Your task to perform on an android device: Check the weather Image 0: 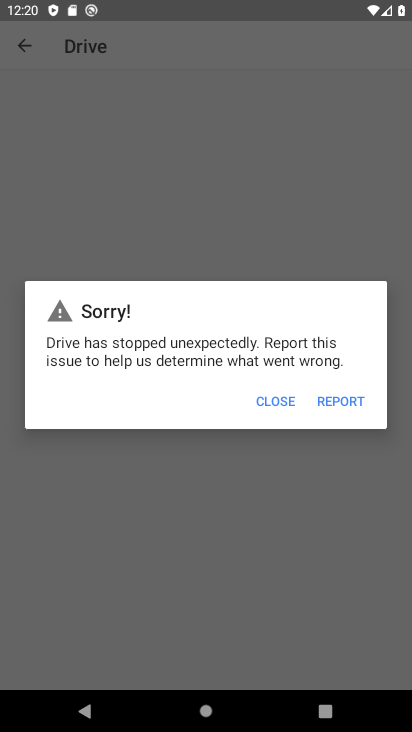
Step 0: press home button
Your task to perform on an android device: Check the weather Image 1: 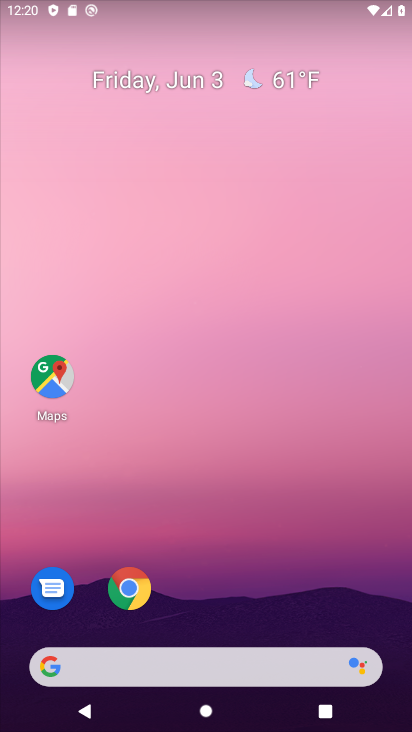
Step 1: drag from (244, 554) to (250, 183)
Your task to perform on an android device: Check the weather Image 2: 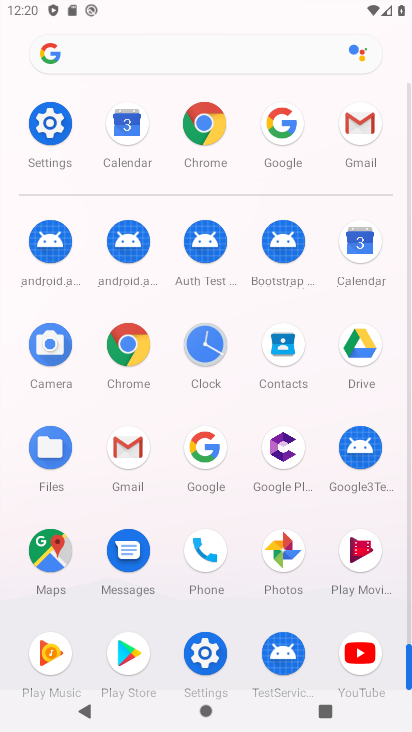
Step 2: click (193, 455)
Your task to perform on an android device: Check the weather Image 3: 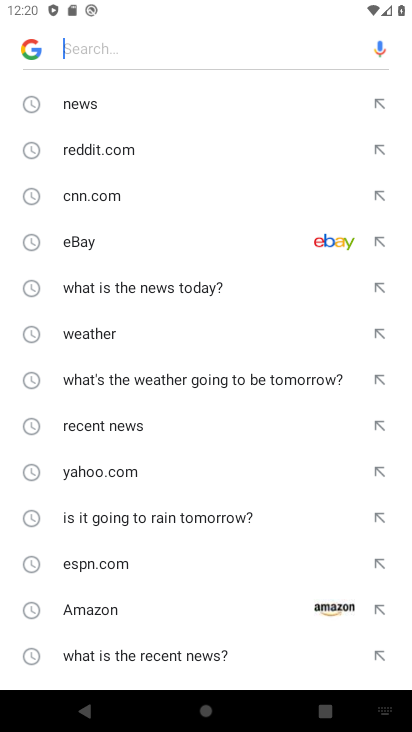
Step 3: press back button
Your task to perform on an android device: Check the weather Image 4: 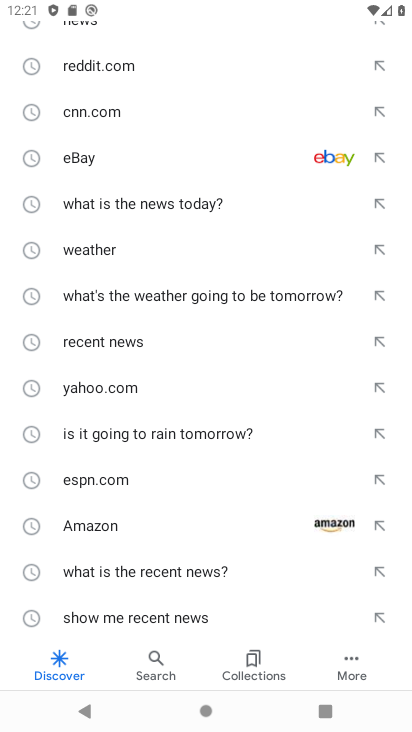
Step 4: click (56, 667)
Your task to perform on an android device: Check the weather Image 5: 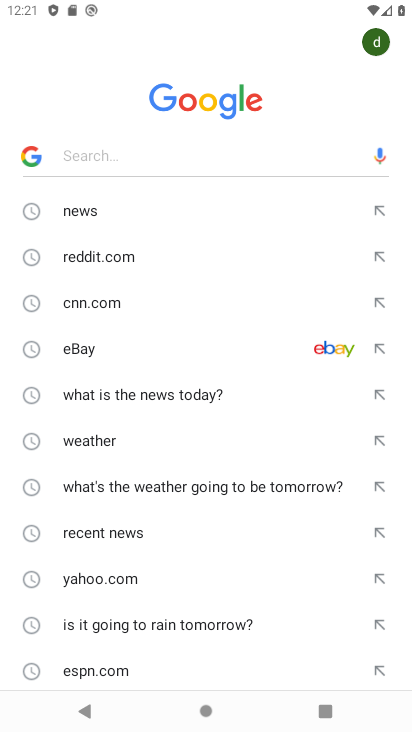
Step 5: click (118, 448)
Your task to perform on an android device: Check the weather Image 6: 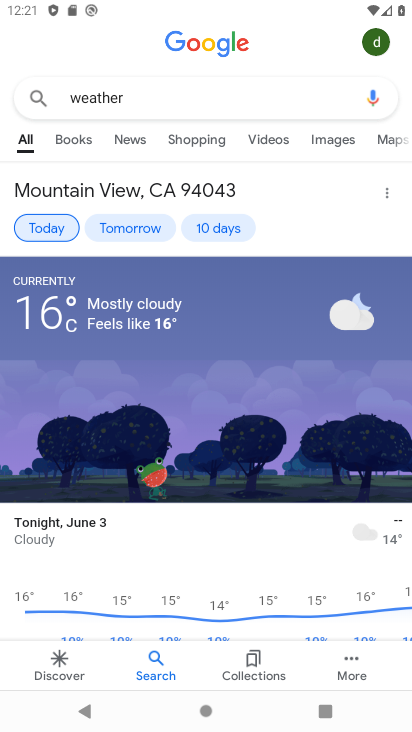
Step 6: task complete